Your task to perform on an android device: set default search engine in the chrome app Image 0: 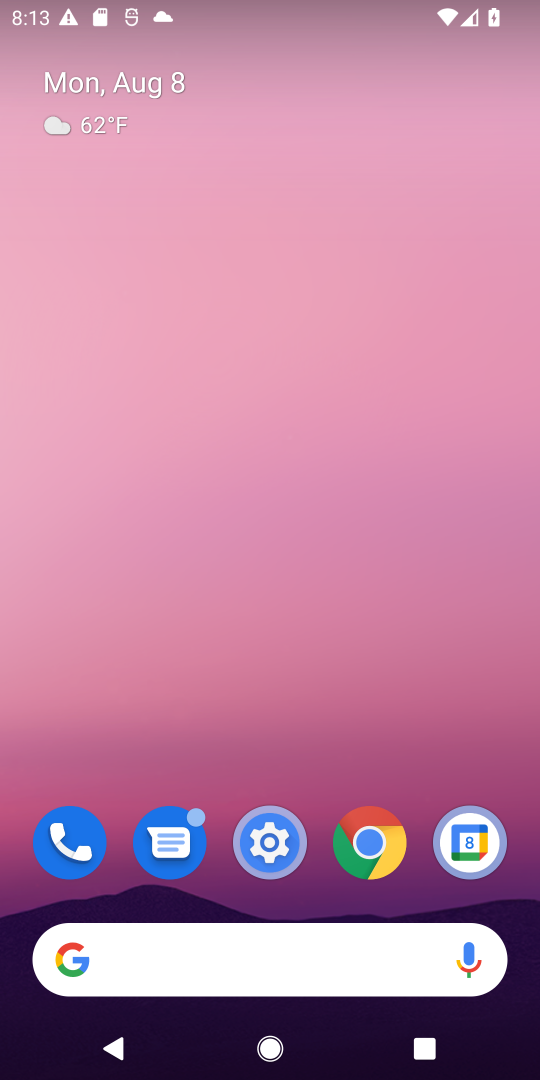
Step 0: drag from (309, 730) to (385, 69)
Your task to perform on an android device: set default search engine in the chrome app Image 1: 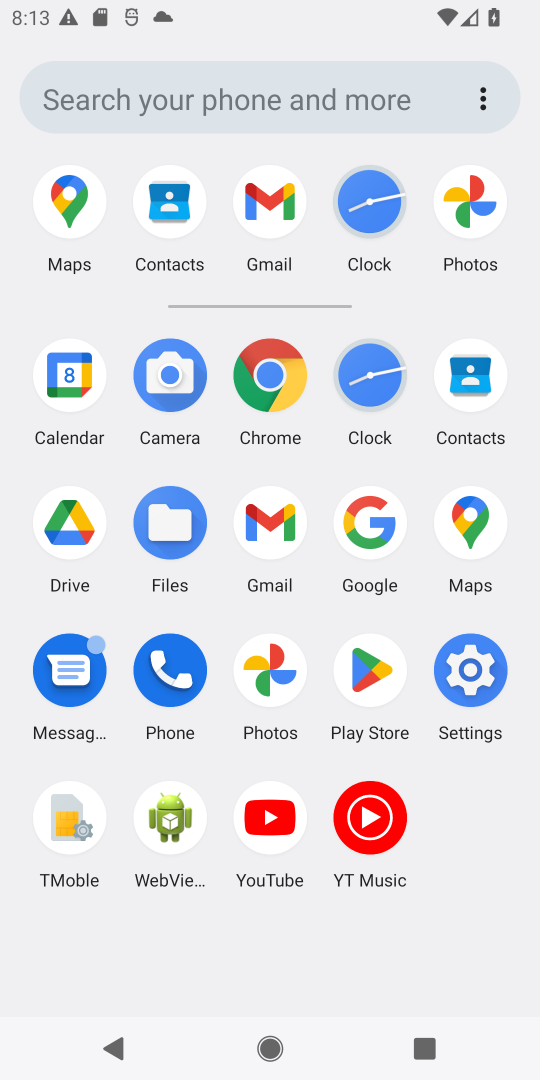
Step 1: click (283, 368)
Your task to perform on an android device: set default search engine in the chrome app Image 2: 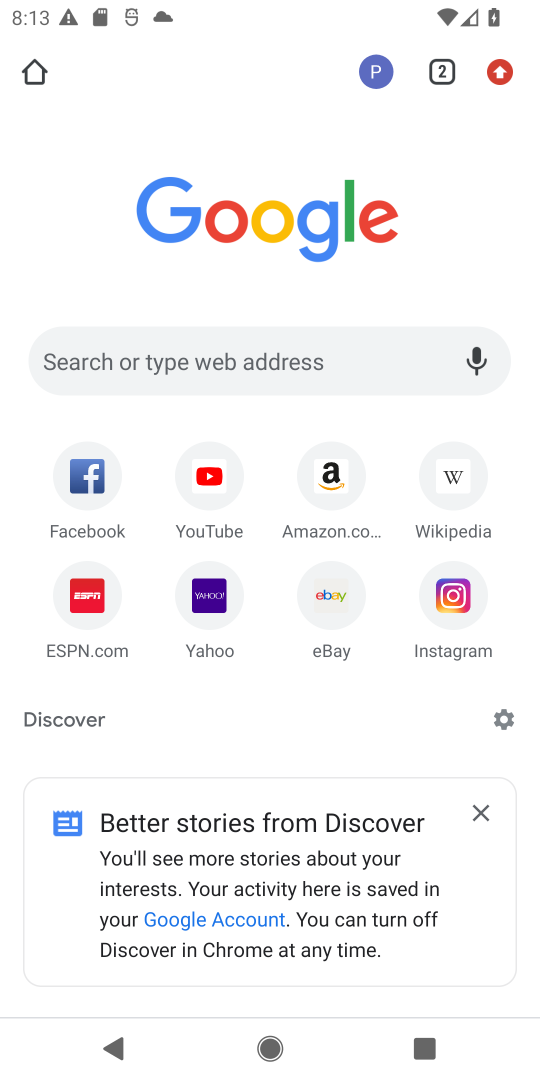
Step 2: click (495, 73)
Your task to perform on an android device: set default search engine in the chrome app Image 3: 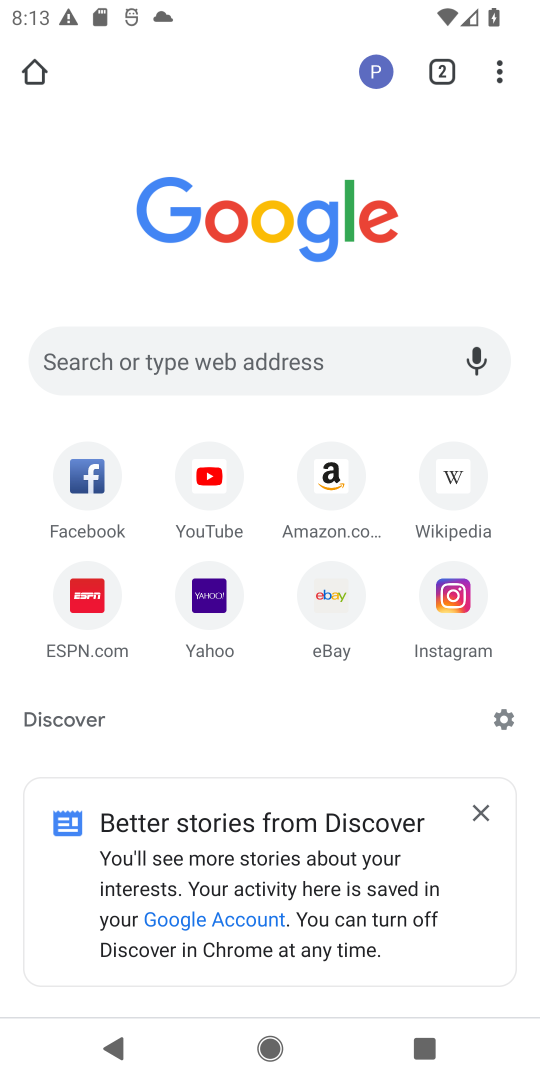
Step 3: click (495, 75)
Your task to perform on an android device: set default search engine in the chrome app Image 4: 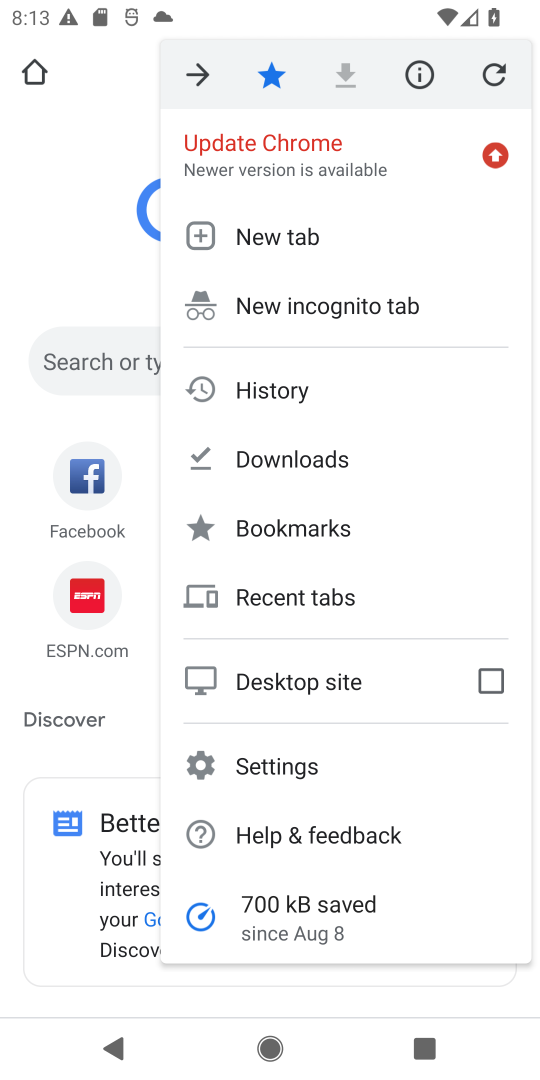
Step 4: click (301, 771)
Your task to perform on an android device: set default search engine in the chrome app Image 5: 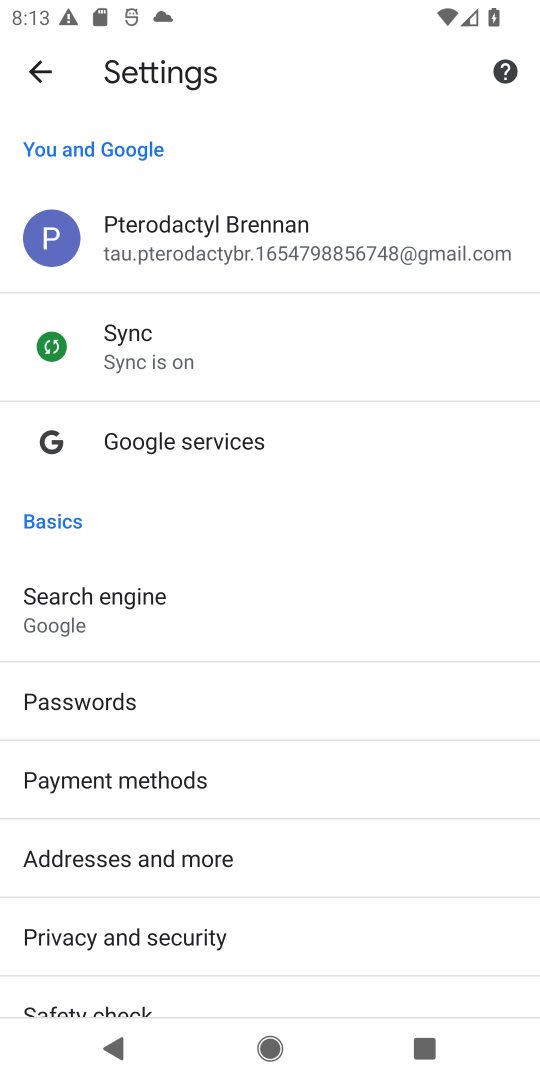
Step 5: drag from (300, 844) to (305, 297)
Your task to perform on an android device: set default search engine in the chrome app Image 6: 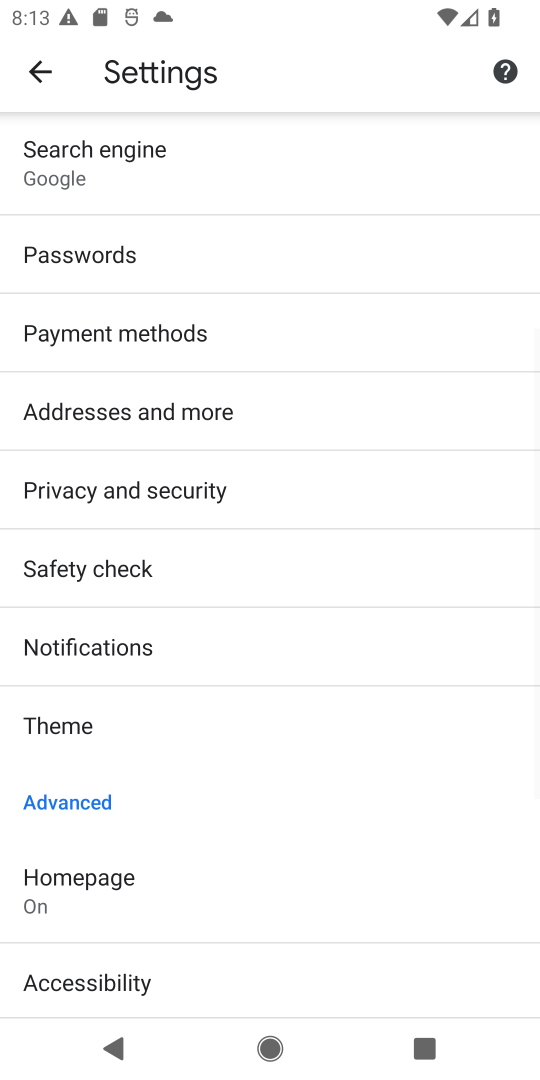
Step 6: click (147, 163)
Your task to perform on an android device: set default search engine in the chrome app Image 7: 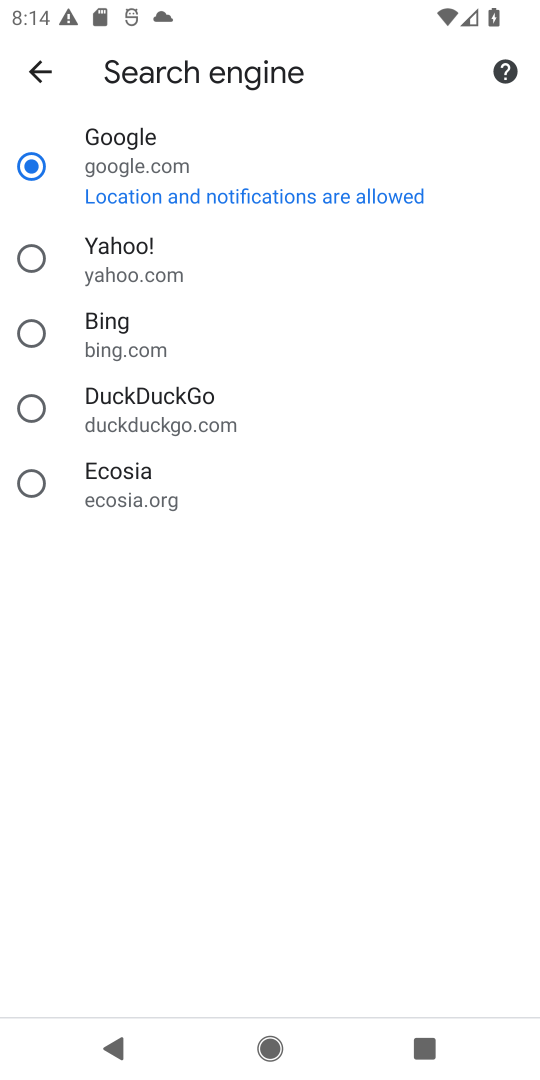
Step 7: task complete